Your task to perform on an android device: turn on location history Image 0: 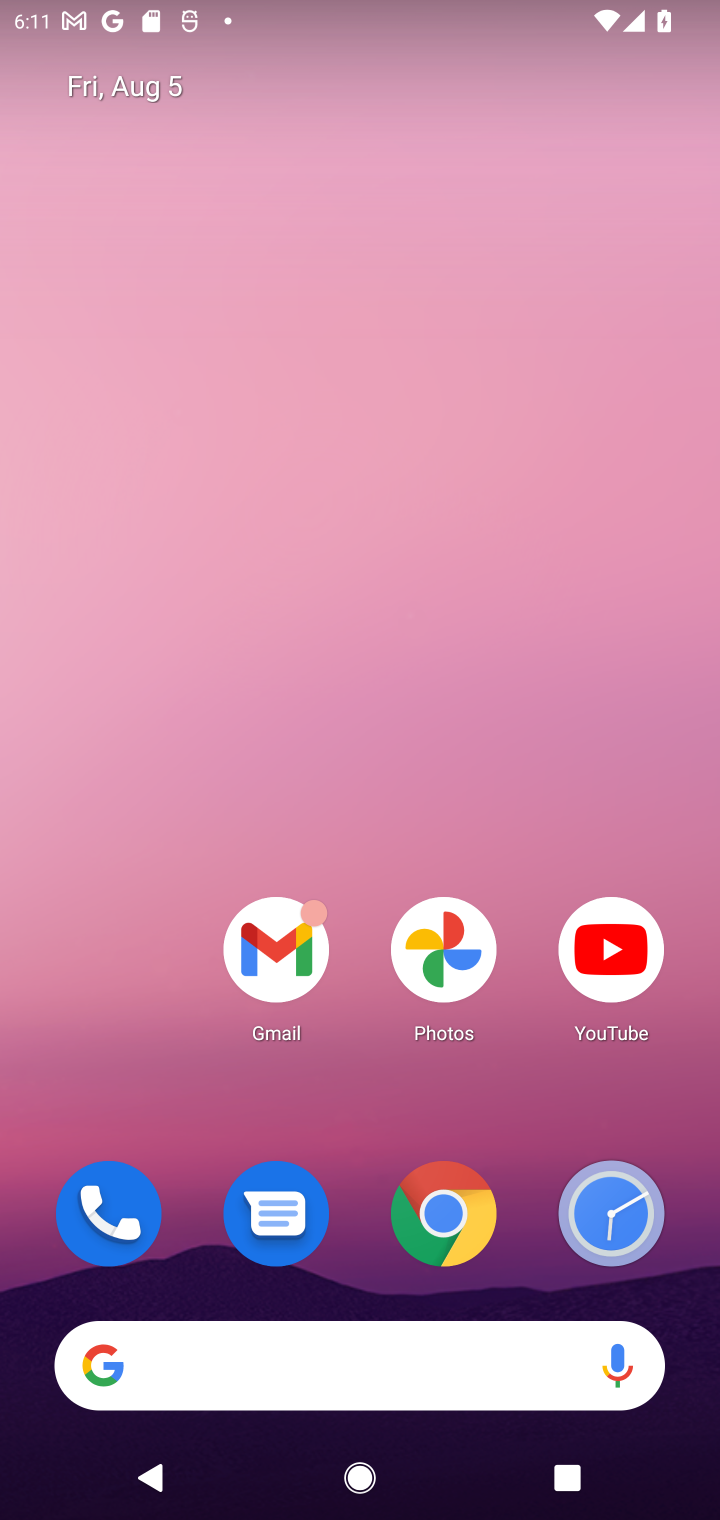
Step 0: drag from (440, 572) to (474, 54)
Your task to perform on an android device: turn on location history Image 1: 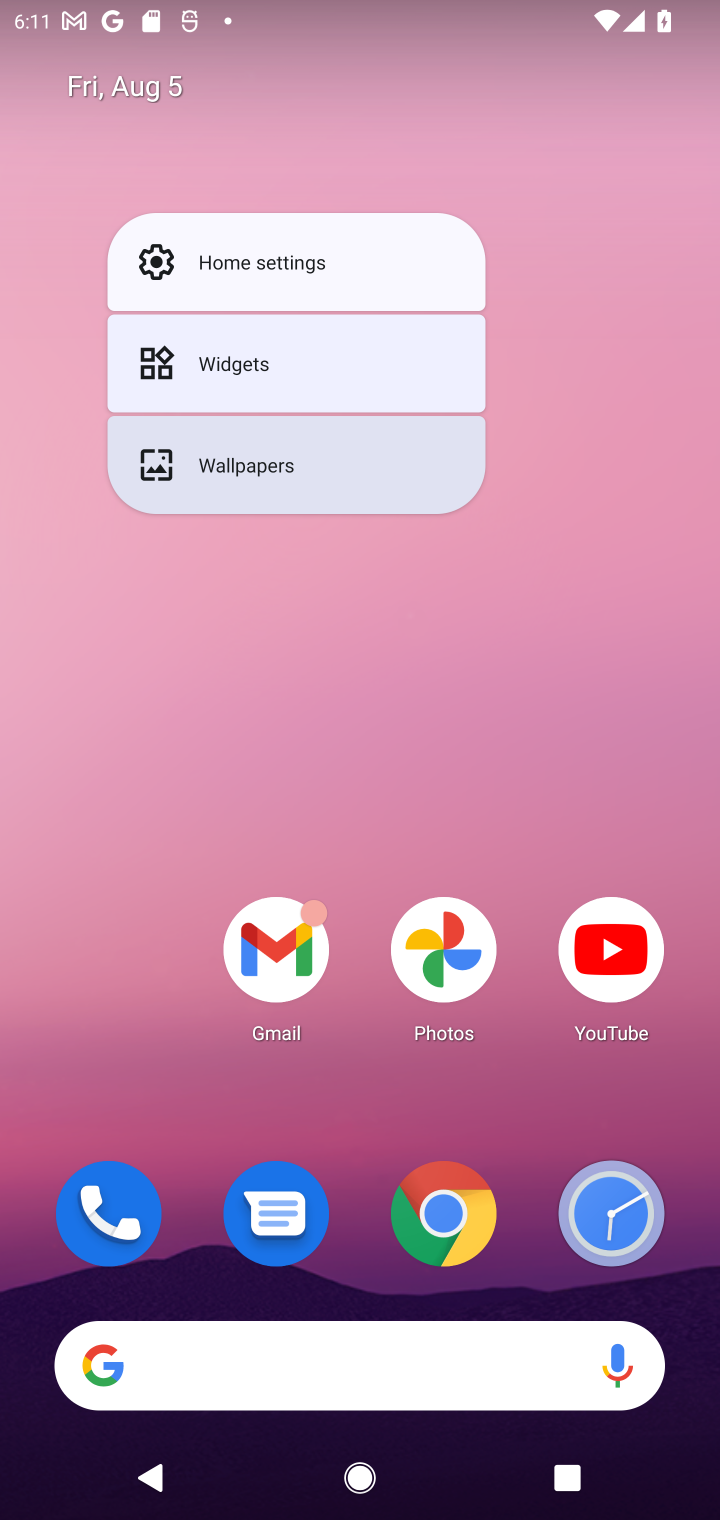
Step 1: click (297, 748)
Your task to perform on an android device: turn on location history Image 2: 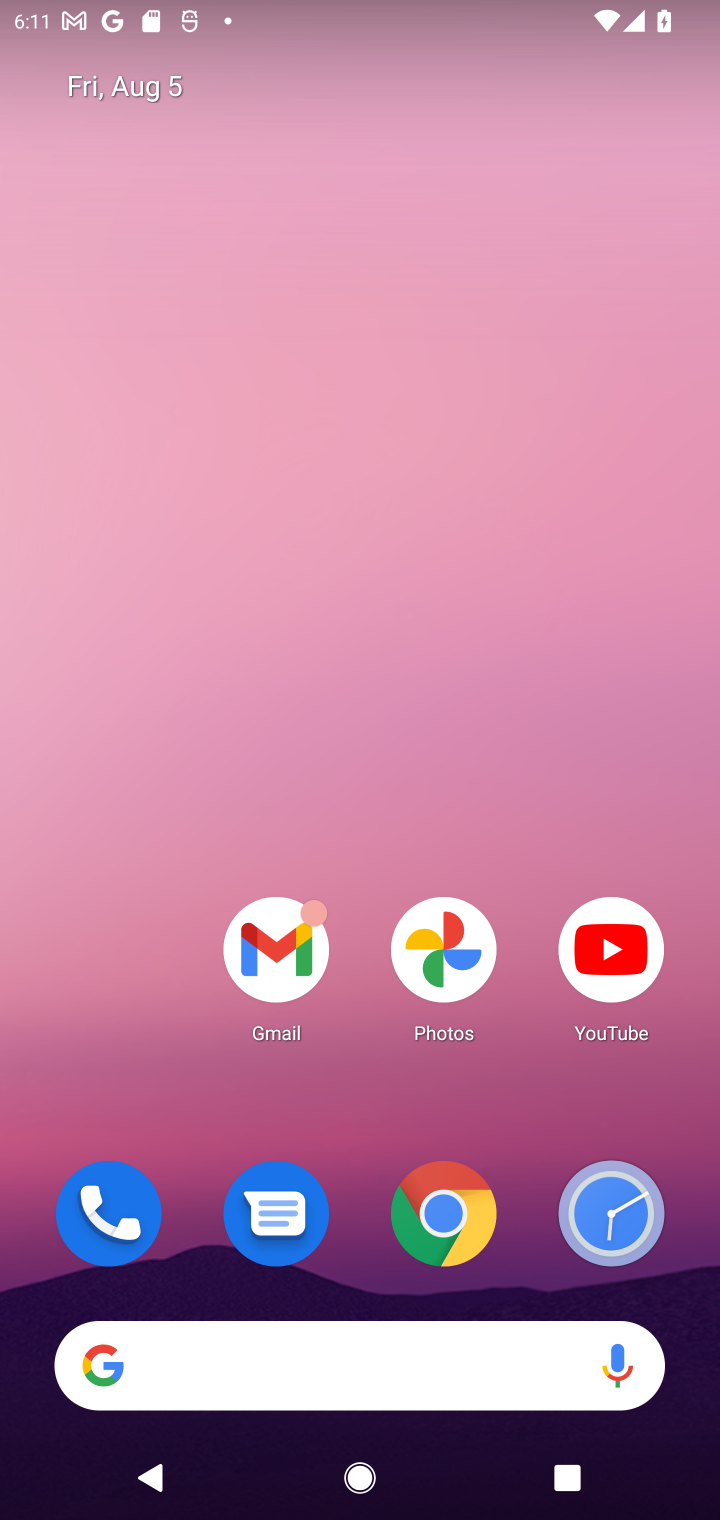
Step 2: task complete